Your task to perform on an android device: Clear the cart on target.com. Search for "logitech g pro" on target.com, select the first entry, add it to the cart, then select checkout. Image 0: 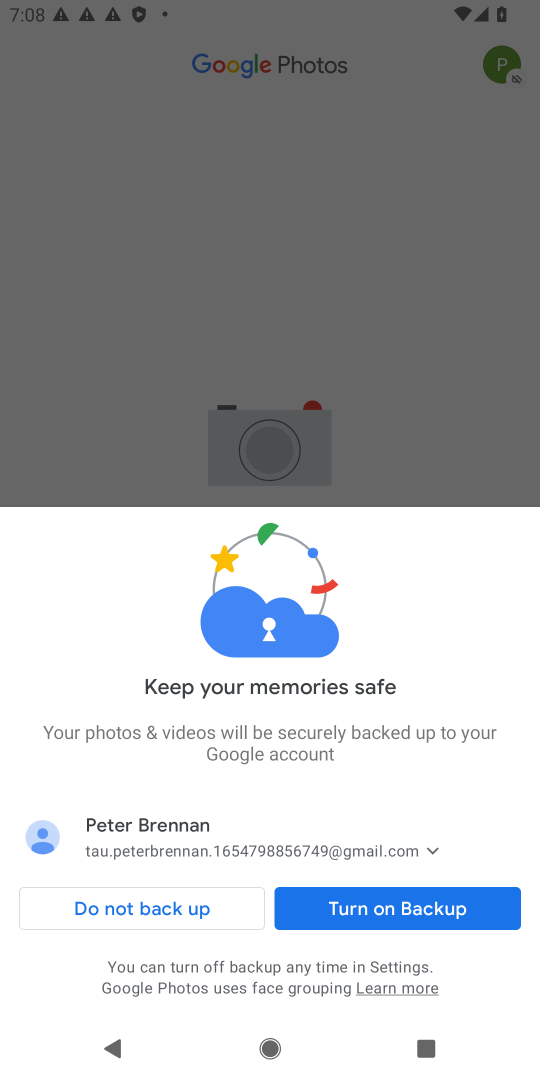
Step 0: press home button
Your task to perform on an android device: Clear the cart on target.com. Search for "logitech g pro" on target.com, select the first entry, add it to the cart, then select checkout. Image 1: 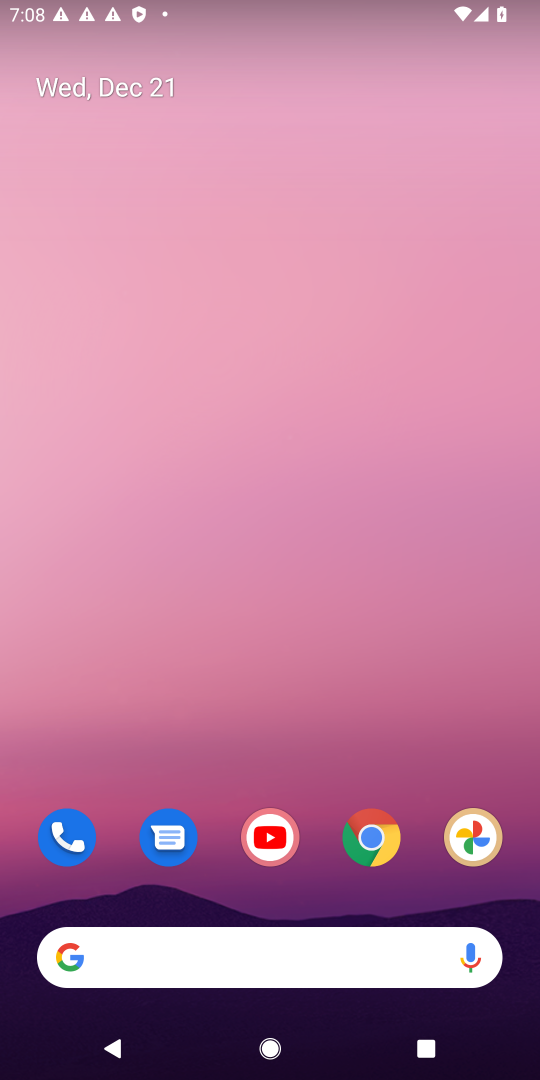
Step 1: drag from (225, 954) to (230, 304)
Your task to perform on an android device: Clear the cart on target.com. Search for "logitech g pro" on target.com, select the first entry, add it to the cart, then select checkout. Image 2: 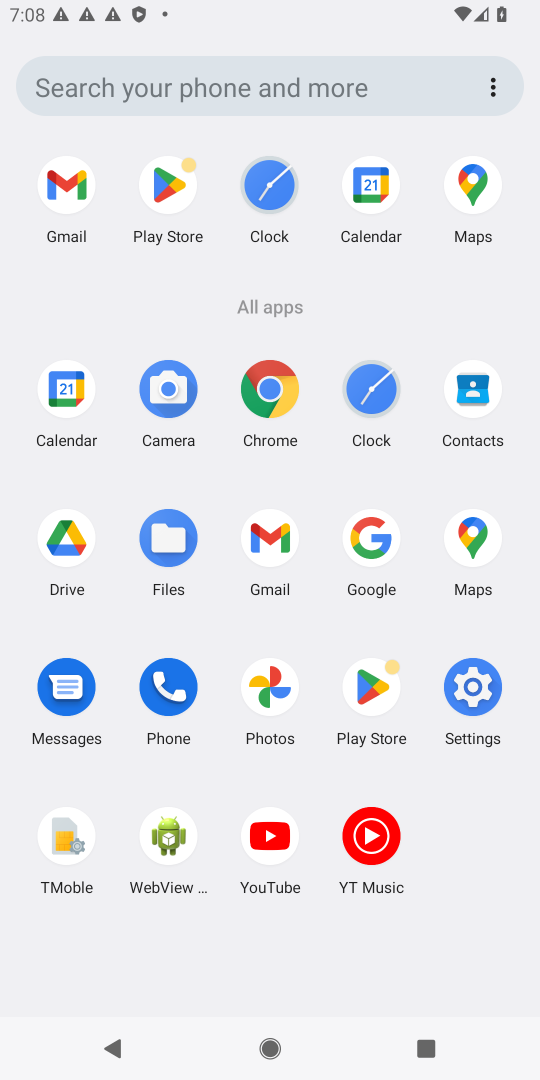
Step 2: click (367, 542)
Your task to perform on an android device: Clear the cart on target.com. Search for "logitech g pro" on target.com, select the first entry, add it to the cart, then select checkout. Image 3: 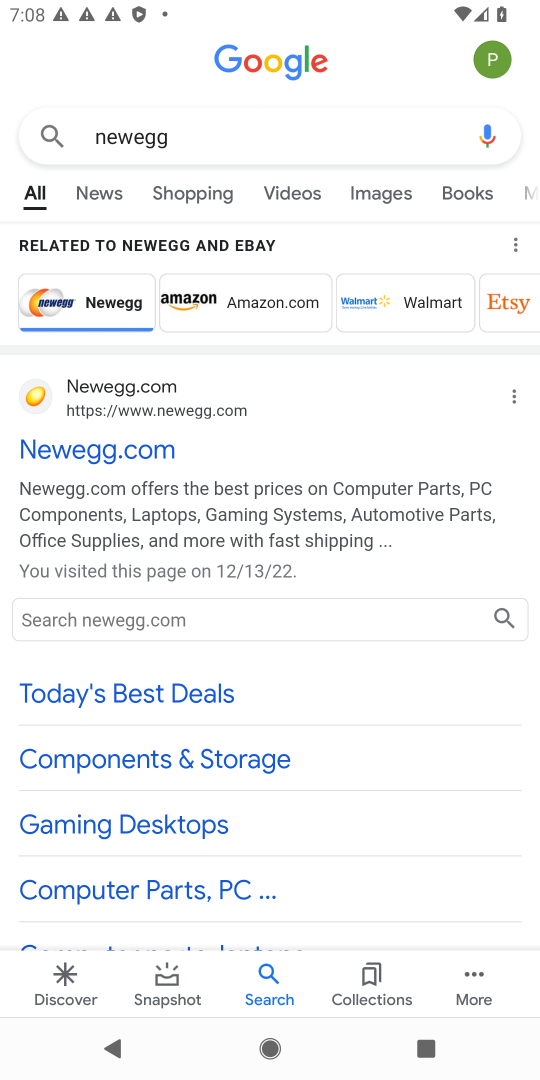
Step 3: click (156, 143)
Your task to perform on an android device: Clear the cart on target.com. Search for "logitech g pro" on target.com, select the first entry, add it to the cart, then select checkout. Image 4: 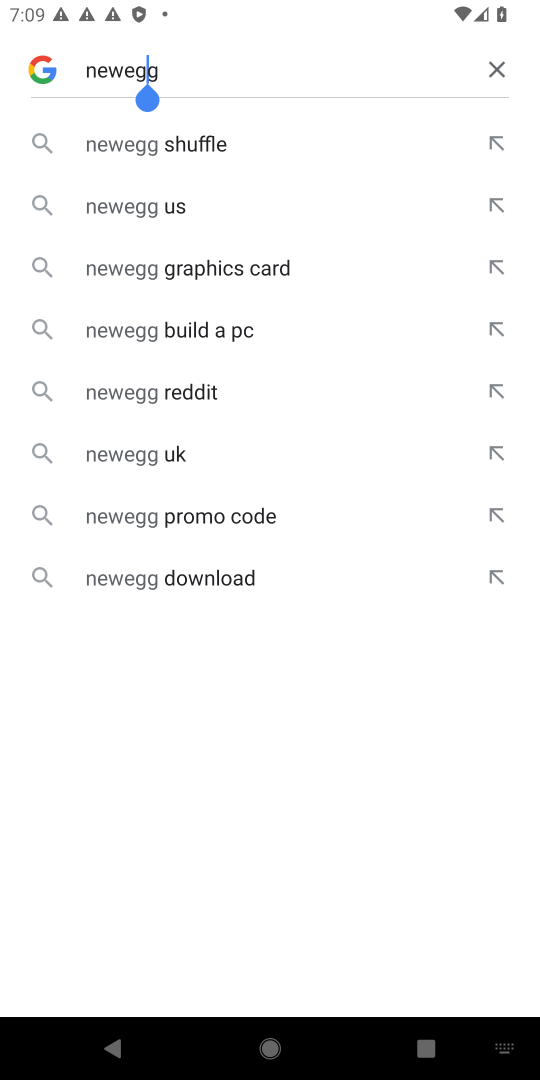
Step 4: click (504, 74)
Your task to perform on an android device: Clear the cart on target.com. Search for "logitech g pro" on target.com, select the first entry, add it to the cart, then select checkout. Image 5: 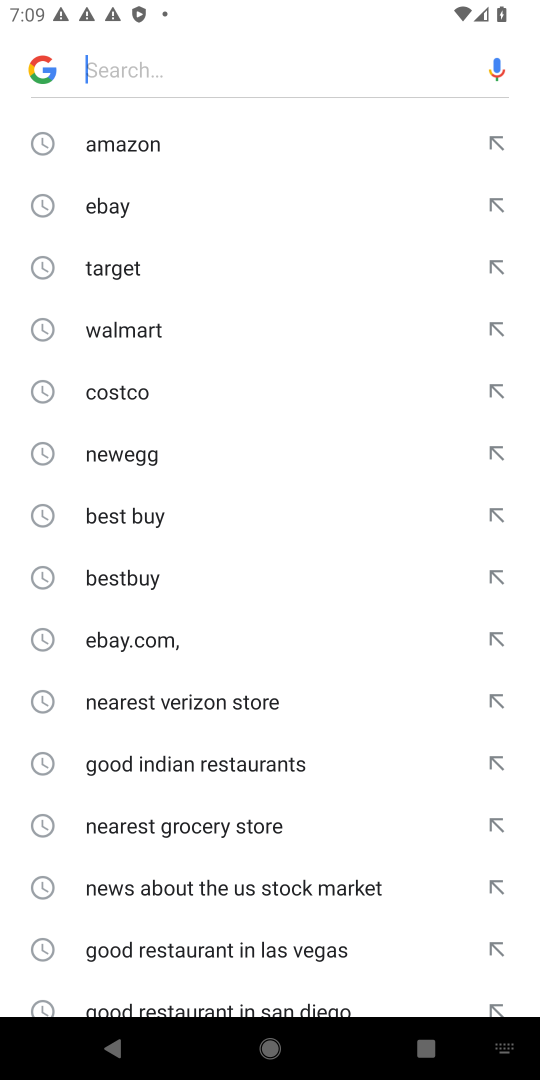
Step 5: click (147, 270)
Your task to perform on an android device: Clear the cart on target.com. Search for "logitech g pro" on target.com, select the first entry, add it to the cart, then select checkout. Image 6: 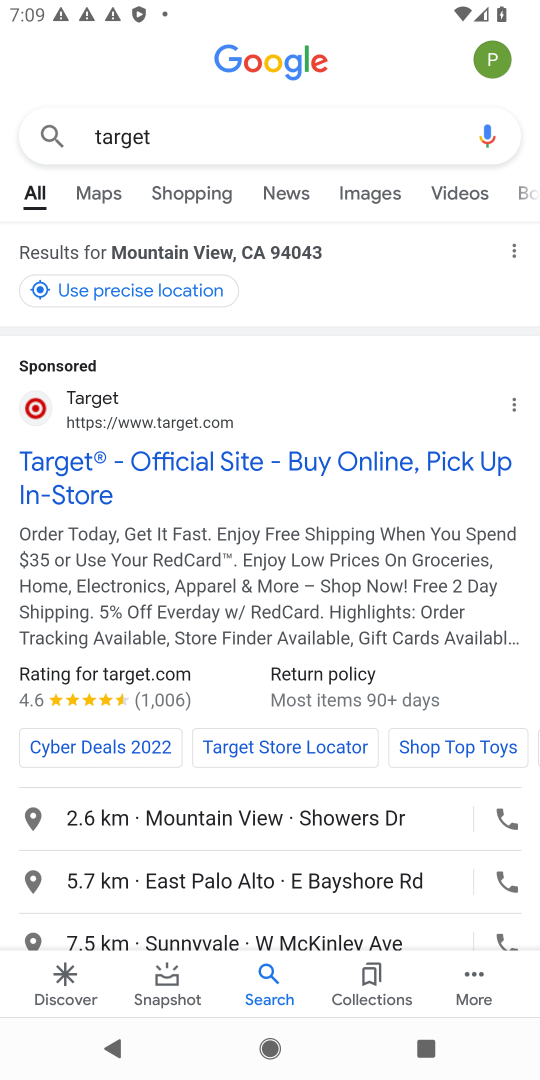
Step 6: click (162, 460)
Your task to perform on an android device: Clear the cart on target.com. Search for "logitech g pro" on target.com, select the first entry, add it to the cart, then select checkout. Image 7: 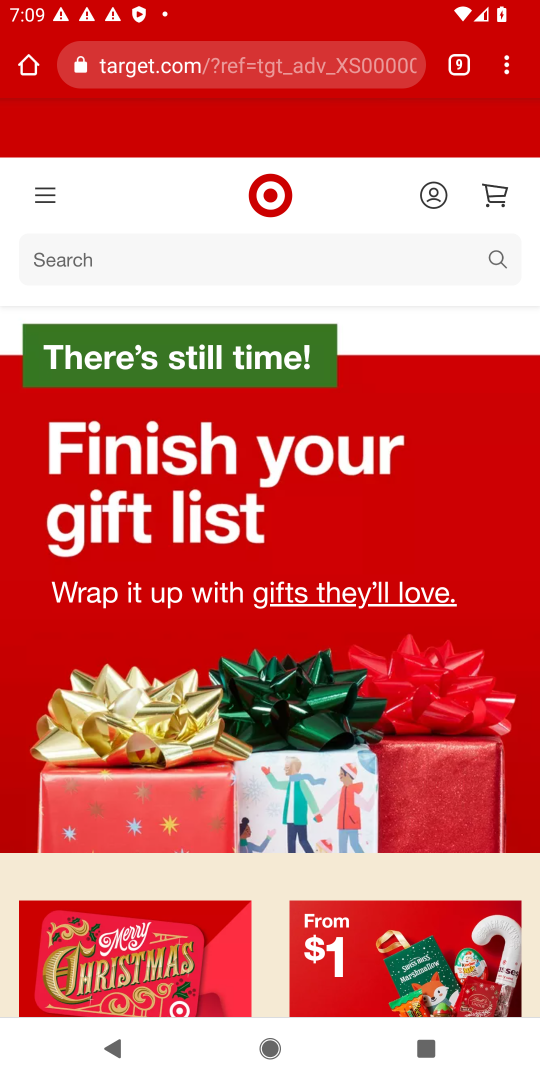
Step 7: click (148, 259)
Your task to perform on an android device: Clear the cart on target.com. Search for "logitech g pro" on target.com, select the first entry, add it to the cart, then select checkout. Image 8: 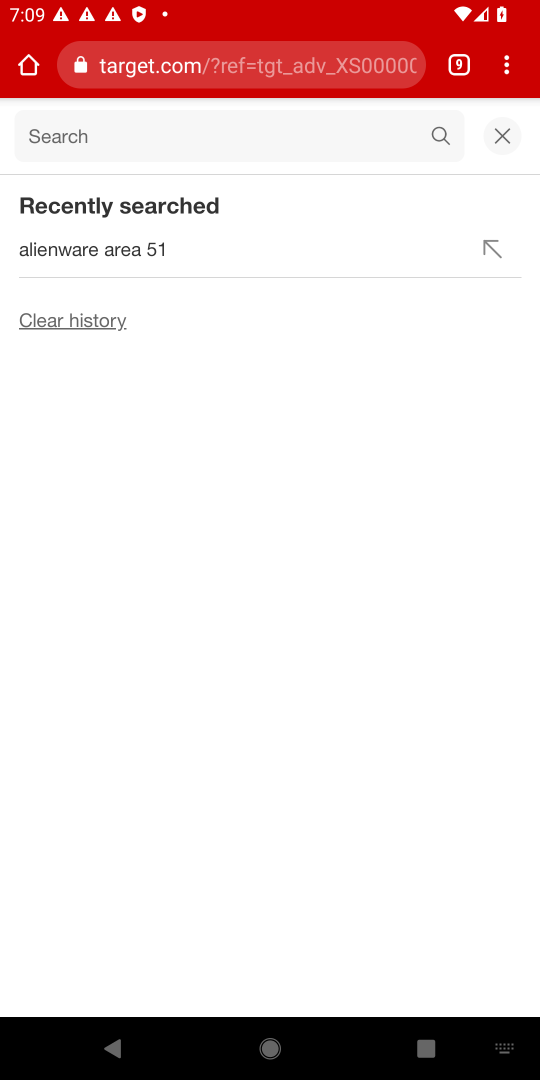
Step 8: type "logitech g pro"
Your task to perform on an android device: Clear the cart on target.com. Search for "logitech g pro" on target.com, select the first entry, add it to the cart, then select checkout. Image 9: 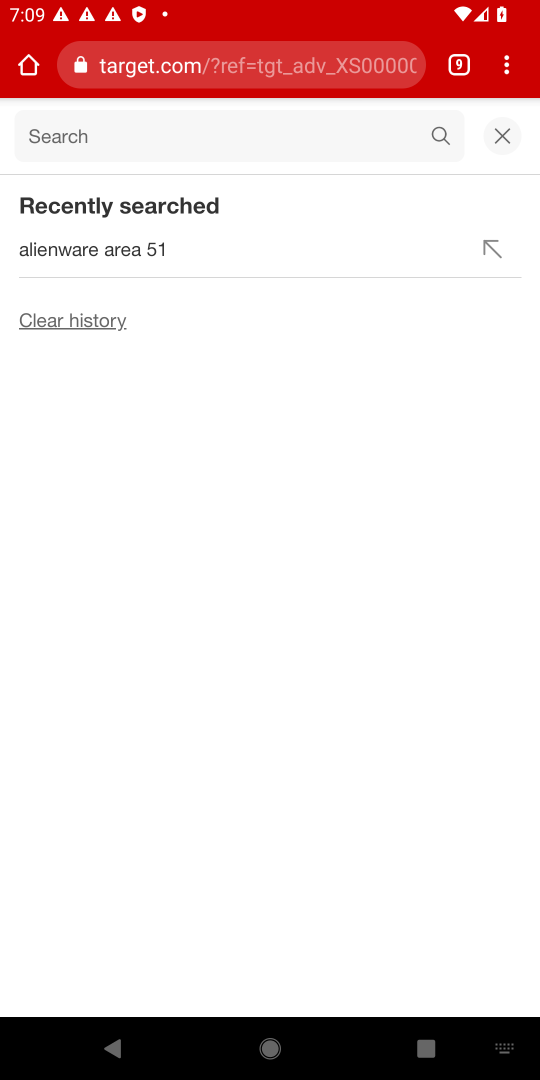
Step 9: click (443, 130)
Your task to perform on an android device: Clear the cart on target.com. Search for "logitech g pro" on target.com, select the first entry, add it to the cart, then select checkout. Image 10: 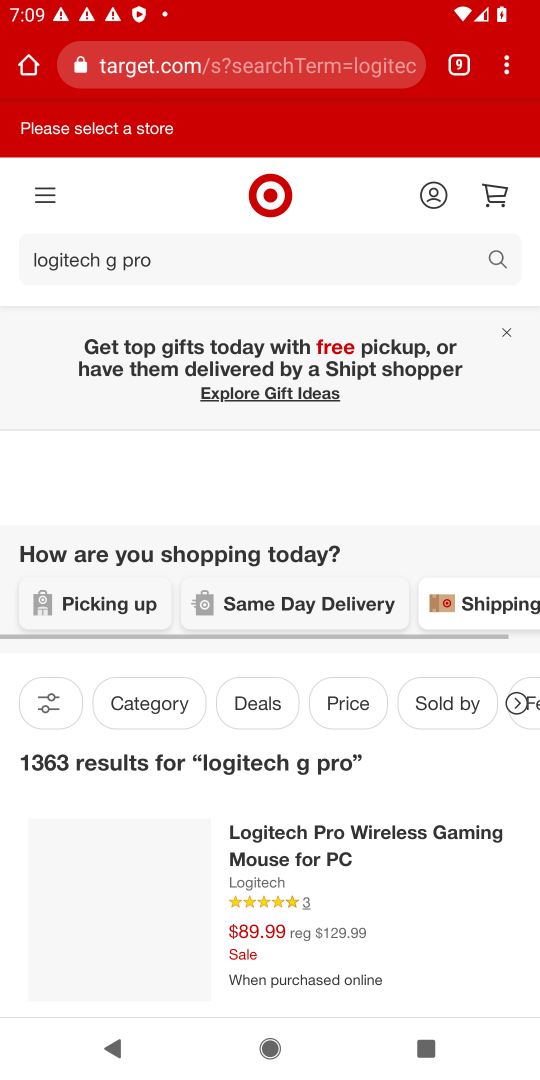
Step 10: drag from (250, 838) to (185, 439)
Your task to perform on an android device: Clear the cart on target.com. Search for "logitech g pro" on target.com, select the first entry, add it to the cart, then select checkout. Image 11: 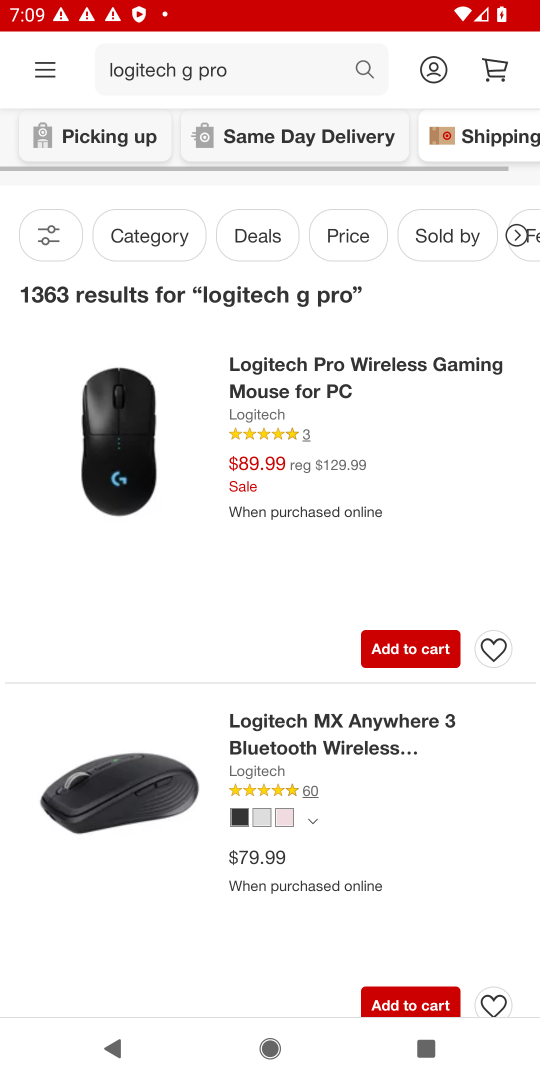
Step 11: click (383, 638)
Your task to perform on an android device: Clear the cart on target.com. Search for "logitech g pro" on target.com, select the first entry, add it to the cart, then select checkout. Image 12: 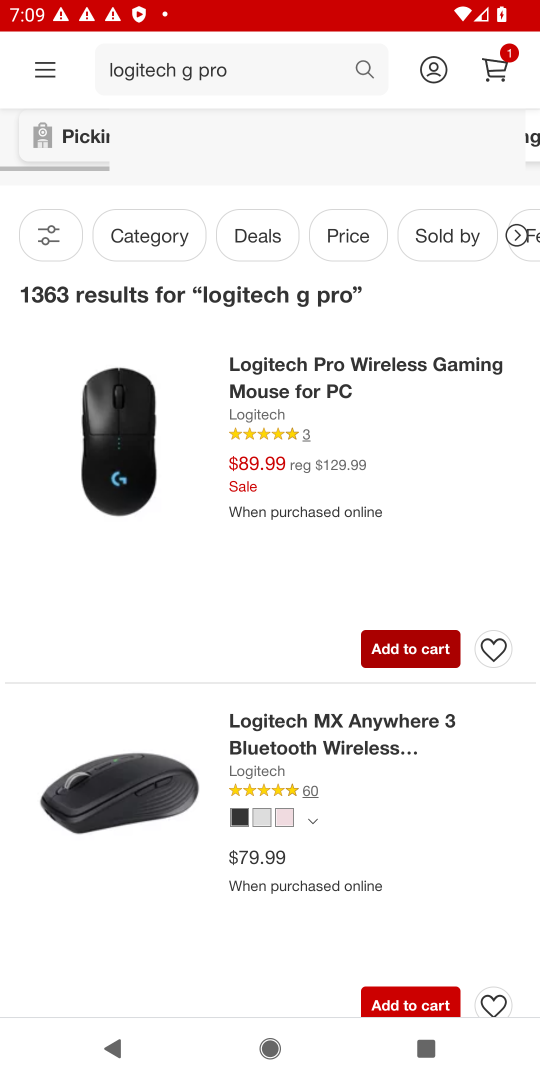
Step 12: click (432, 654)
Your task to perform on an android device: Clear the cart on target.com. Search for "logitech g pro" on target.com, select the first entry, add it to the cart, then select checkout. Image 13: 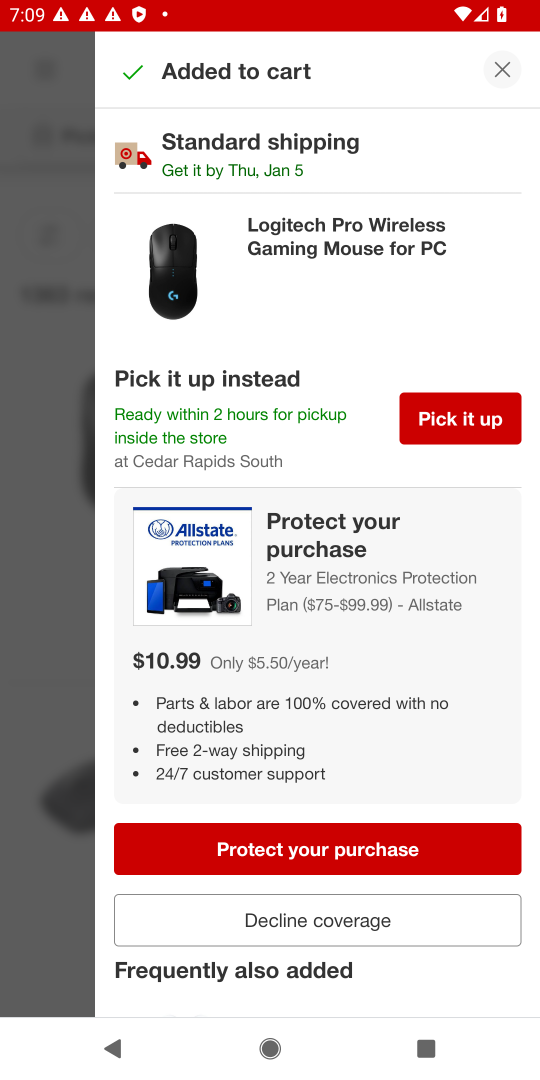
Step 13: click (504, 63)
Your task to perform on an android device: Clear the cart on target.com. Search for "logitech g pro" on target.com, select the first entry, add it to the cart, then select checkout. Image 14: 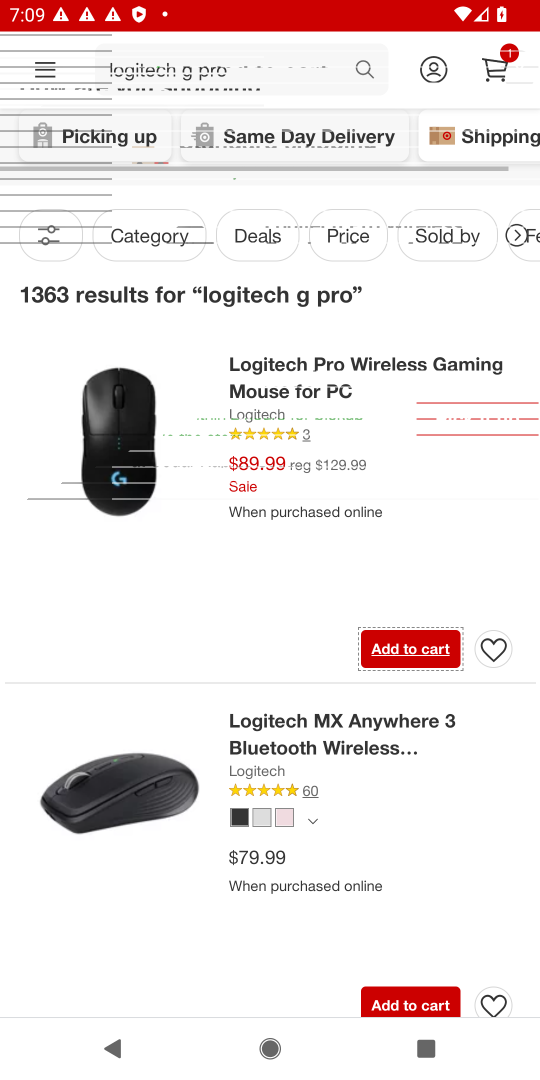
Step 14: click (517, 58)
Your task to perform on an android device: Clear the cart on target.com. Search for "logitech g pro" on target.com, select the first entry, add it to the cart, then select checkout. Image 15: 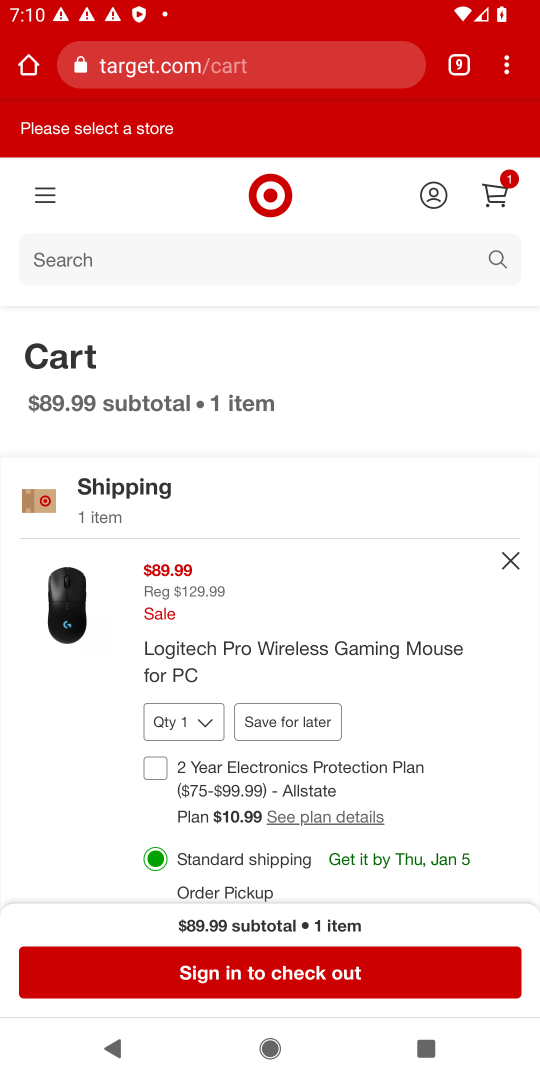
Step 15: click (275, 986)
Your task to perform on an android device: Clear the cart on target.com. Search for "logitech g pro" on target.com, select the first entry, add it to the cart, then select checkout. Image 16: 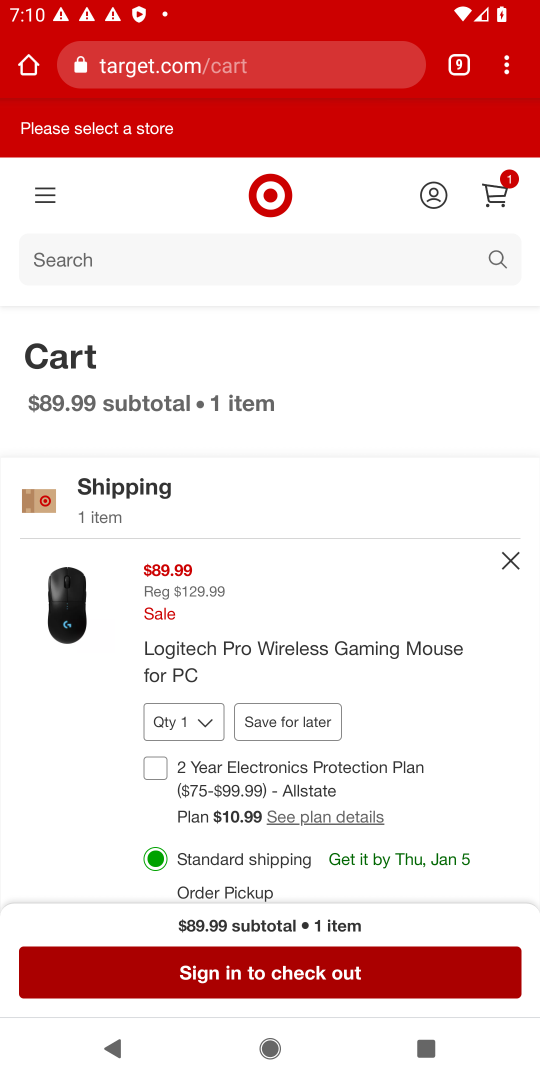
Step 16: click (259, 977)
Your task to perform on an android device: Clear the cart on target.com. Search for "logitech g pro" on target.com, select the first entry, add it to the cart, then select checkout. Image 17: 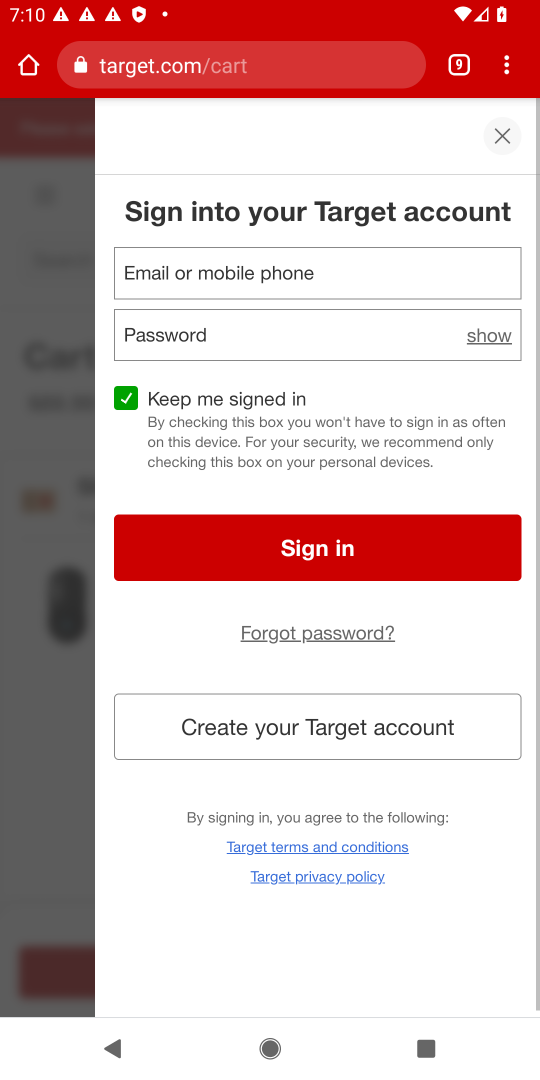
Step 17: task complete